Your task to perform on an android device: Search for Mexican restaurants on Maps Image 0: 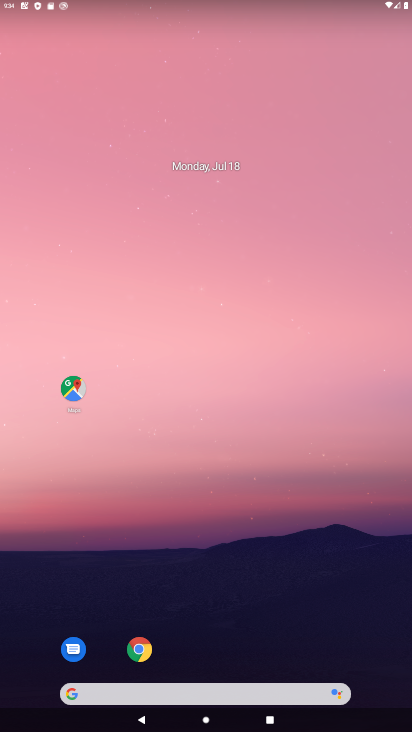
Step 0: click (76, 396)
Your task to perform on an android device: Search for Mexican restaurants on Maps Image 1: 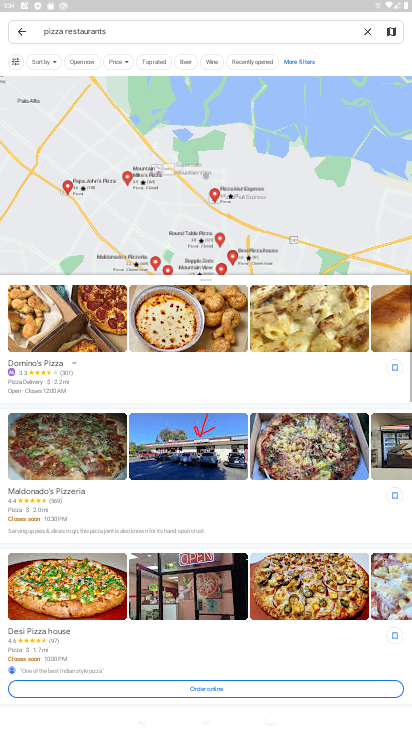
Step 1: click (362, 31)
Your task to perform on an android device: Search for Mexican restaurants on Maps Image 2: 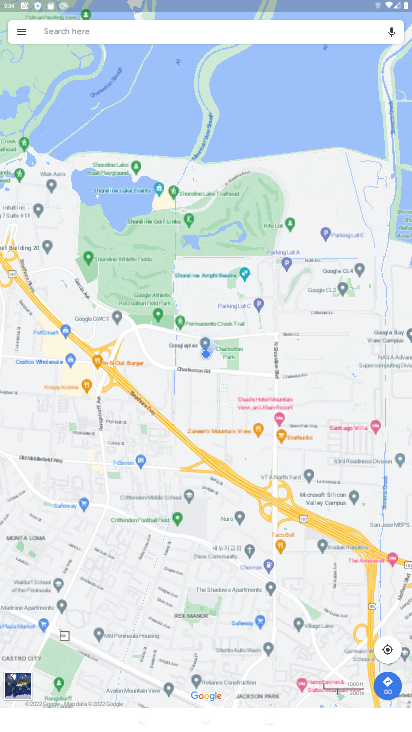
Step 2: click (103, 35)
Your task to perform on an android device: Search for Mexican restaurants on Maps Image 3: 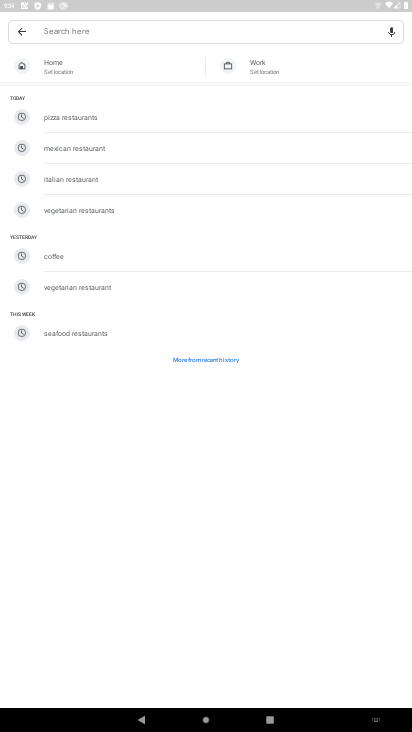
Step 3: click (90, 139)
Your task to perform on an android device: Search for Mexican restaurants on Maps Image 4: 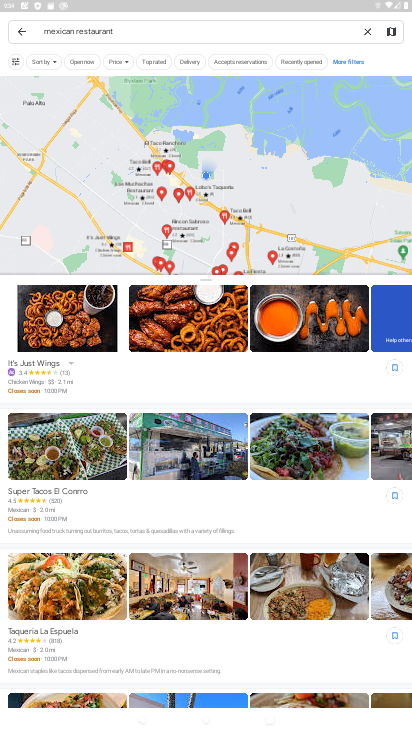
Step 4: task complete